Your task to perform on an android device: Toggle the flashlight Image 0: 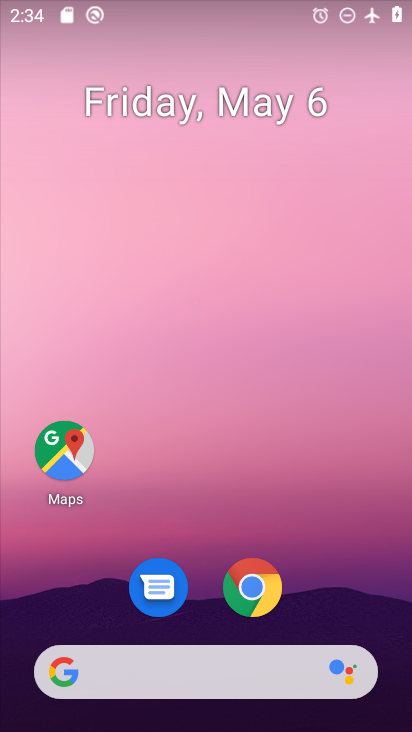
Step 0: click (230, 151)
Your task to perform on an android device: Toggle the flashlight Image 1: 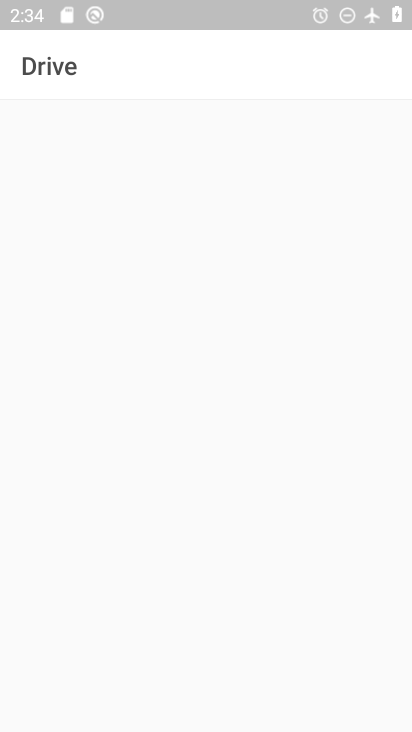
Step 1: press home button
Your task to perform on an android device: Toggle the flashlight Image 2: 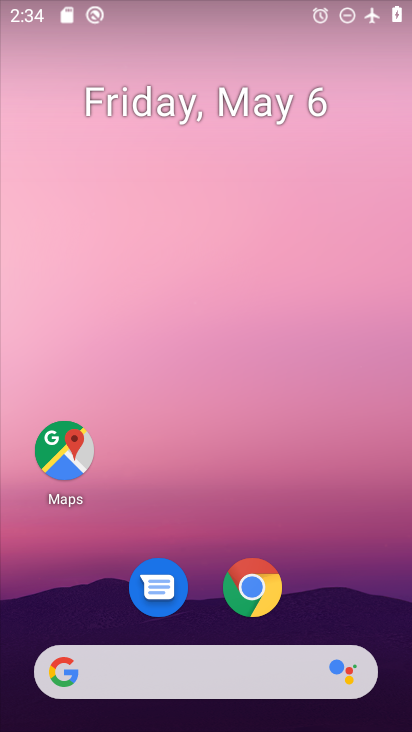
Step 2: drag from (287, 484) to (326, 26)
Your task to perform on an android device: Toggle the flashlight Image 3: 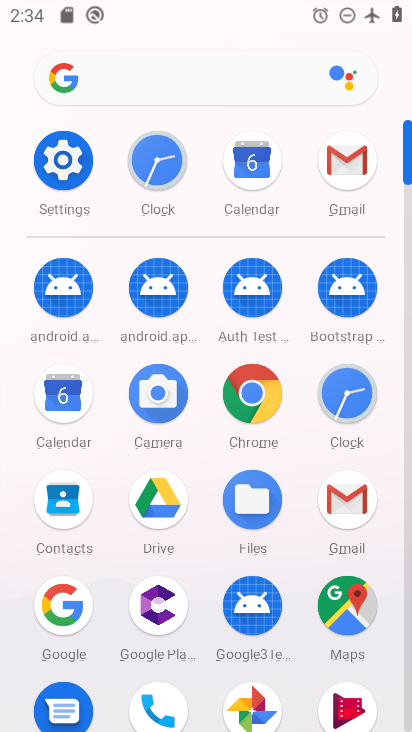
Step 3: click (62, 156)
Your task to perform on an android device: Toggle the flashlight Image 4: 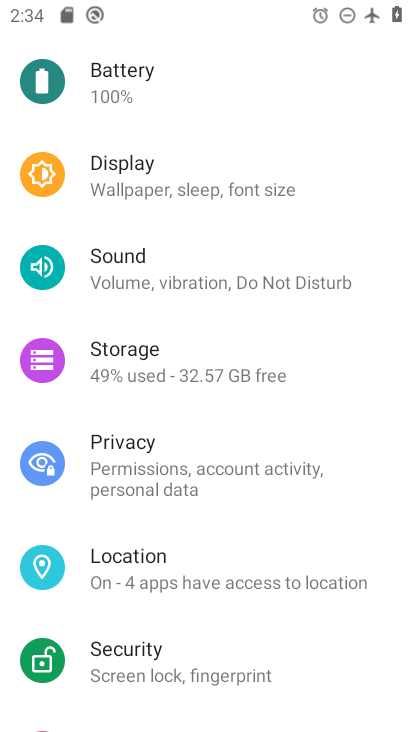
Step 4: drag from (188, 120) to (259, 546)
Your task to perform on an android device: Toggle the flashlight Image 5: 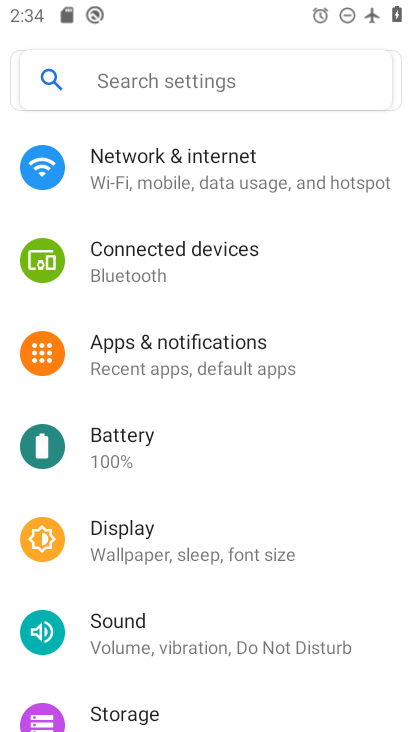
Step 5: click (224, 80)
Your task to perform on an android device: Toggle the flashlight Image 6: 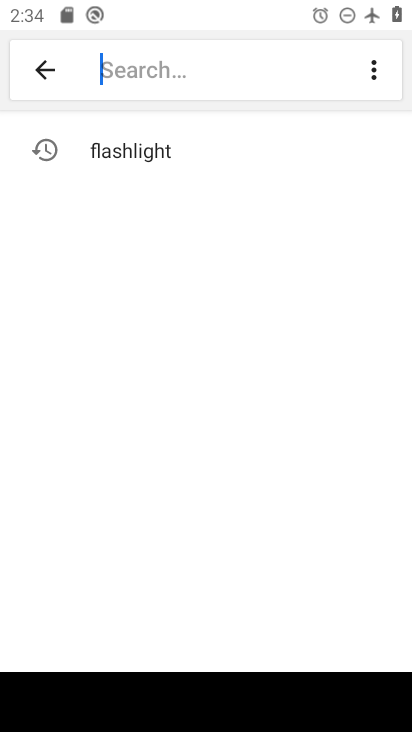
Step 6: click (144, 152)
Your task to perform on an android device: Toggle the flashlight Image 7: 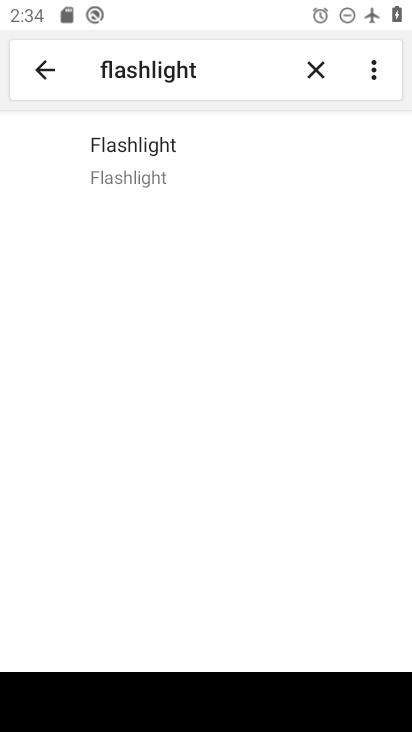
Step 7: task complete